Your task to perform on an android device: Open location settings Image 0: 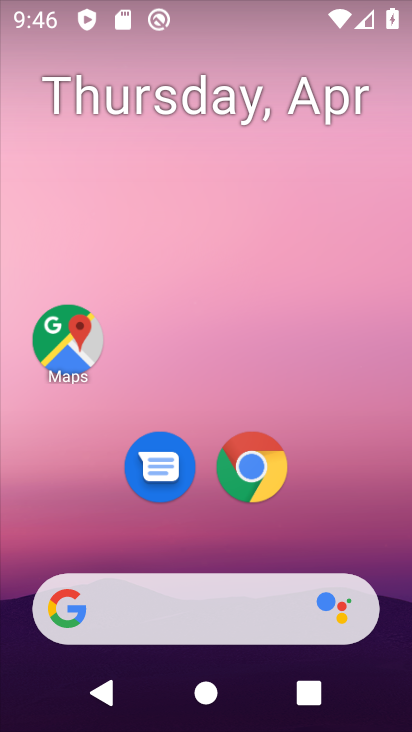
Step 0: drag from (400, 566) to (302, 217)
Your task to perform on an android device: Open location settings Image 1: 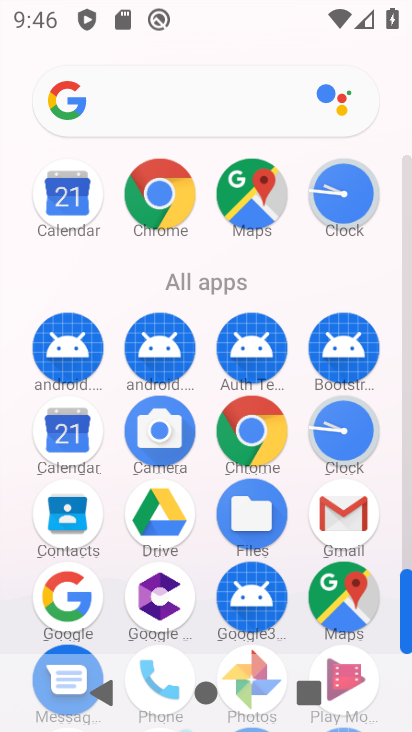
Step 1: drag from (390, 546) to (376, 311)
Your task to perform on an android device: Open location settings Image 2: 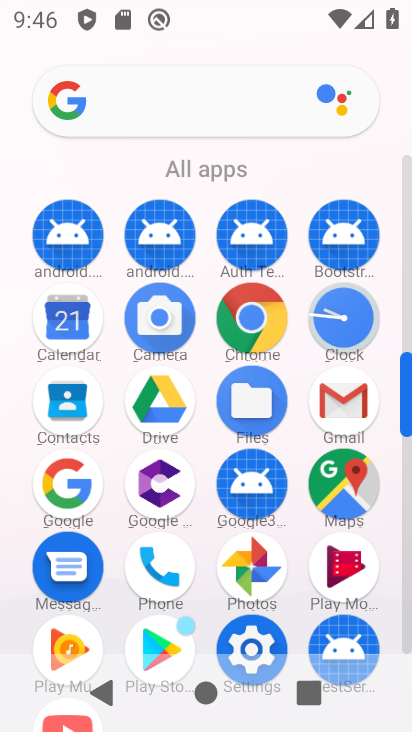
Step 2: click (254, 638)
Your task to perform on an android device: Open location settings Image 3: 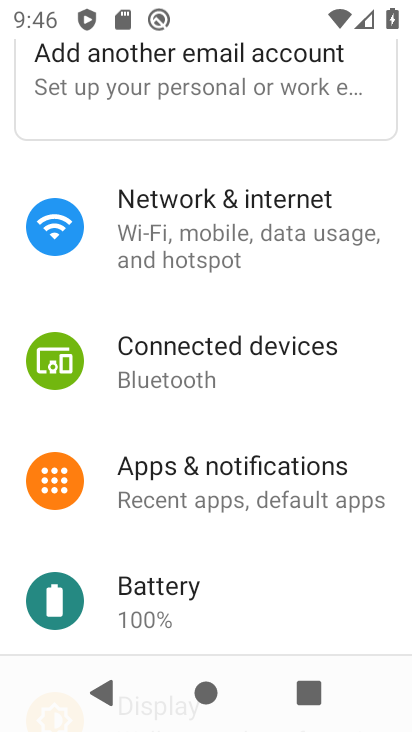
Step 3: drag from (257, 625) to (335, 52)
Your task to perform on an android device: Open location settings Image 4: 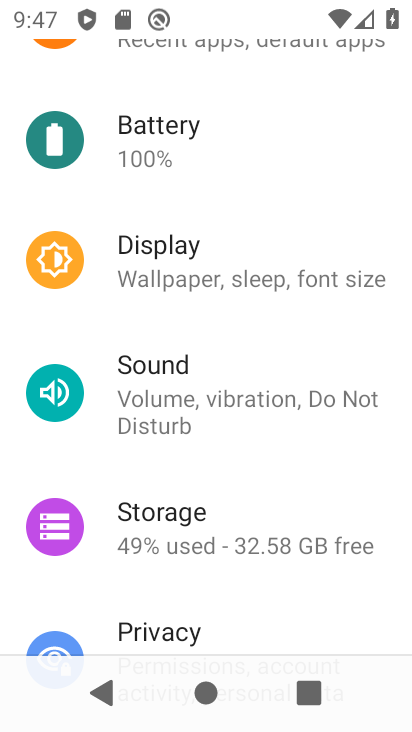
Step 4: drag from (253, 613) to (288, 213)
Your task to perform on an android device: Open location settings Image 5: 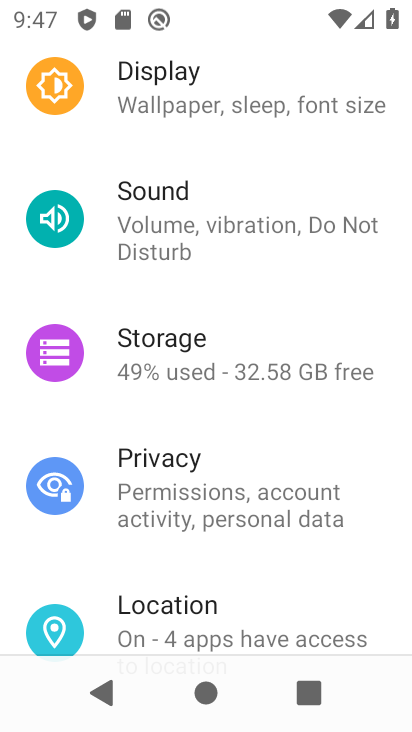
Step 5: click (255, 632)
Your task to perform on an android device: Open location settings Image 6: 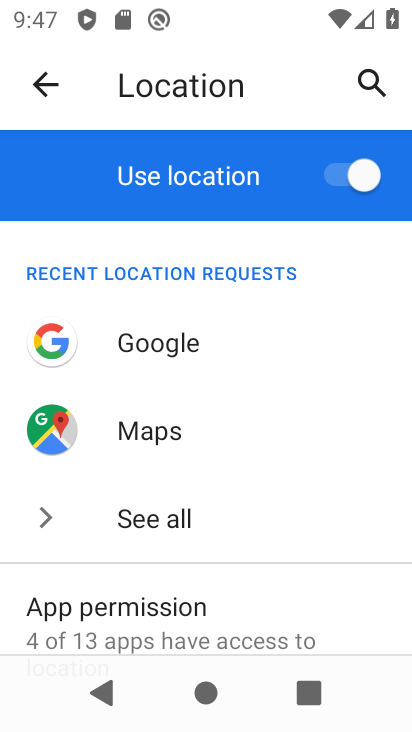
Step 6: task complete